Your task to perform on an android device: add a contact Image 0: 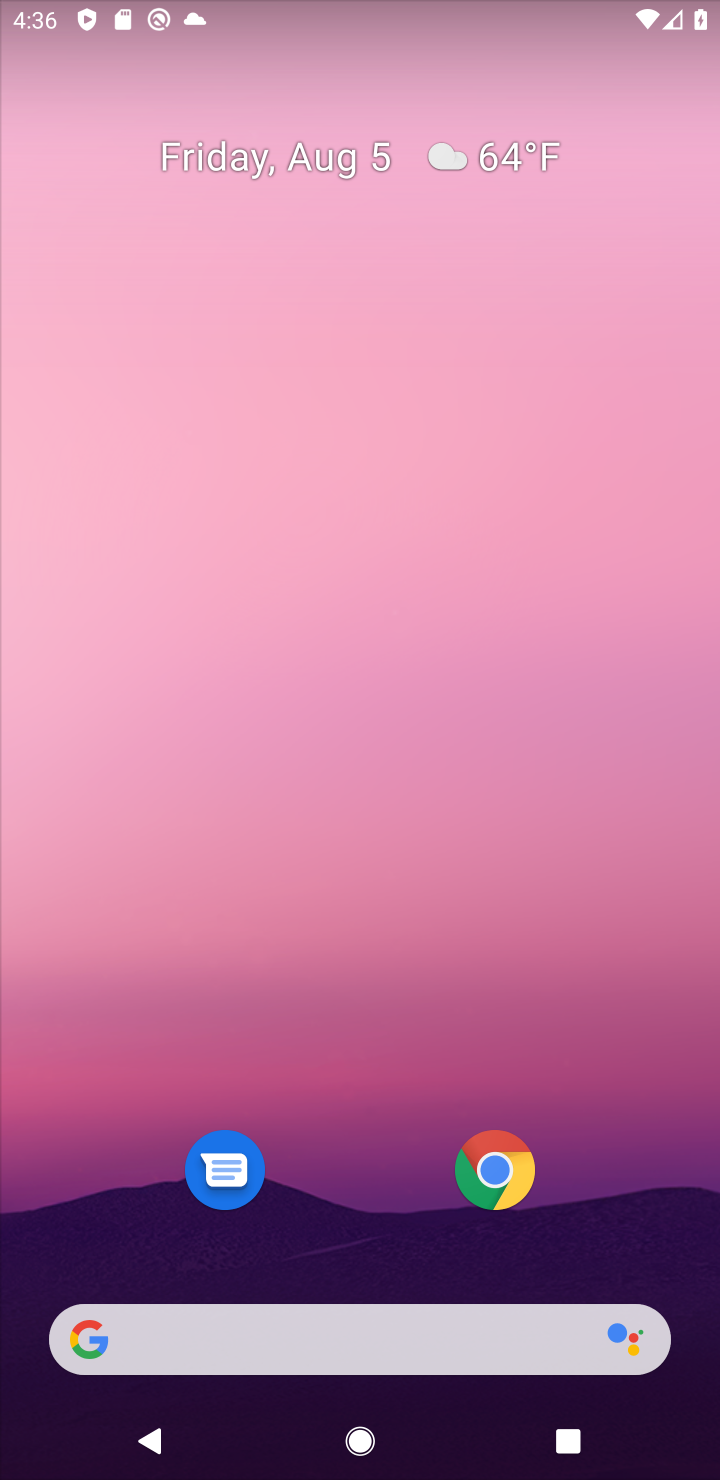
Step 0: drag from (362, 1271) to (425, 46)
Your task to perform on an android device: add a contact Image 1: 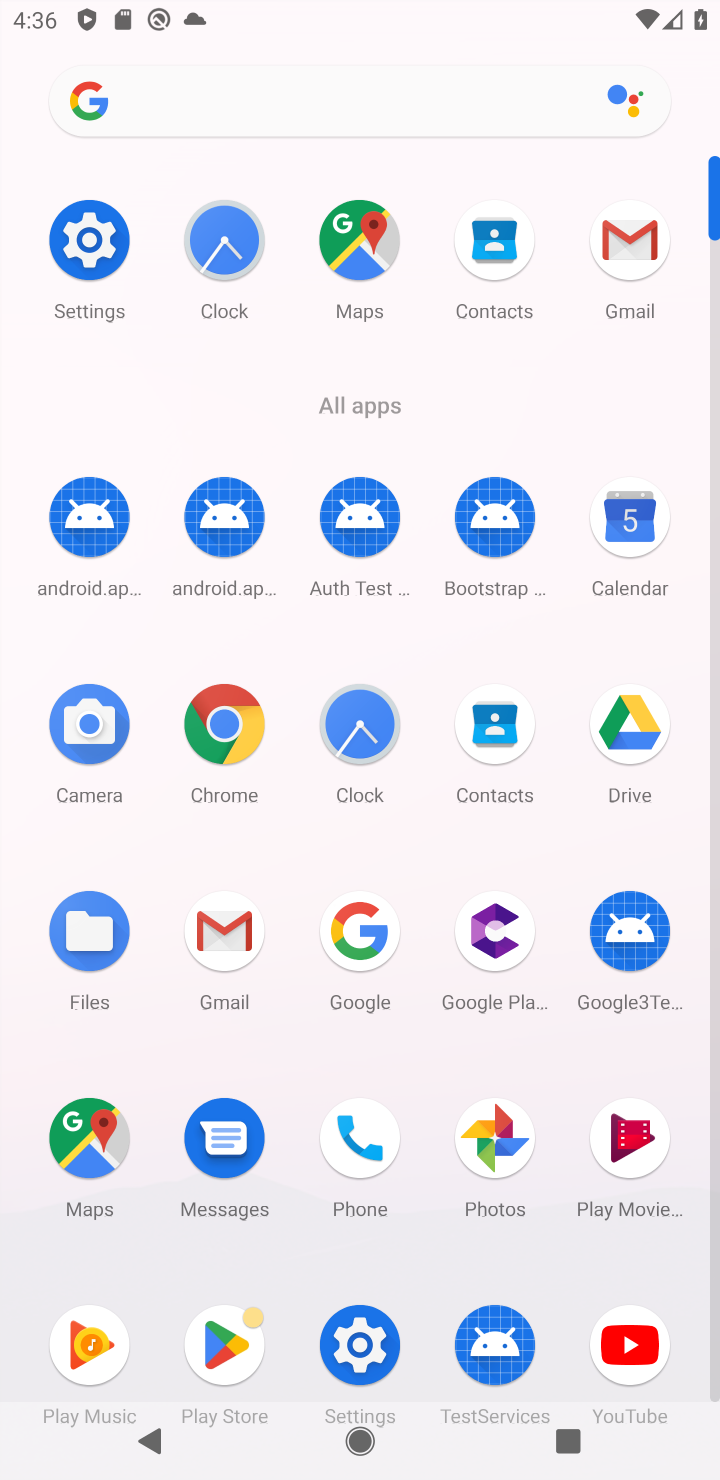
Step 1: click (478, 727)
Your task to perform on an android device: add a contact Image 2: 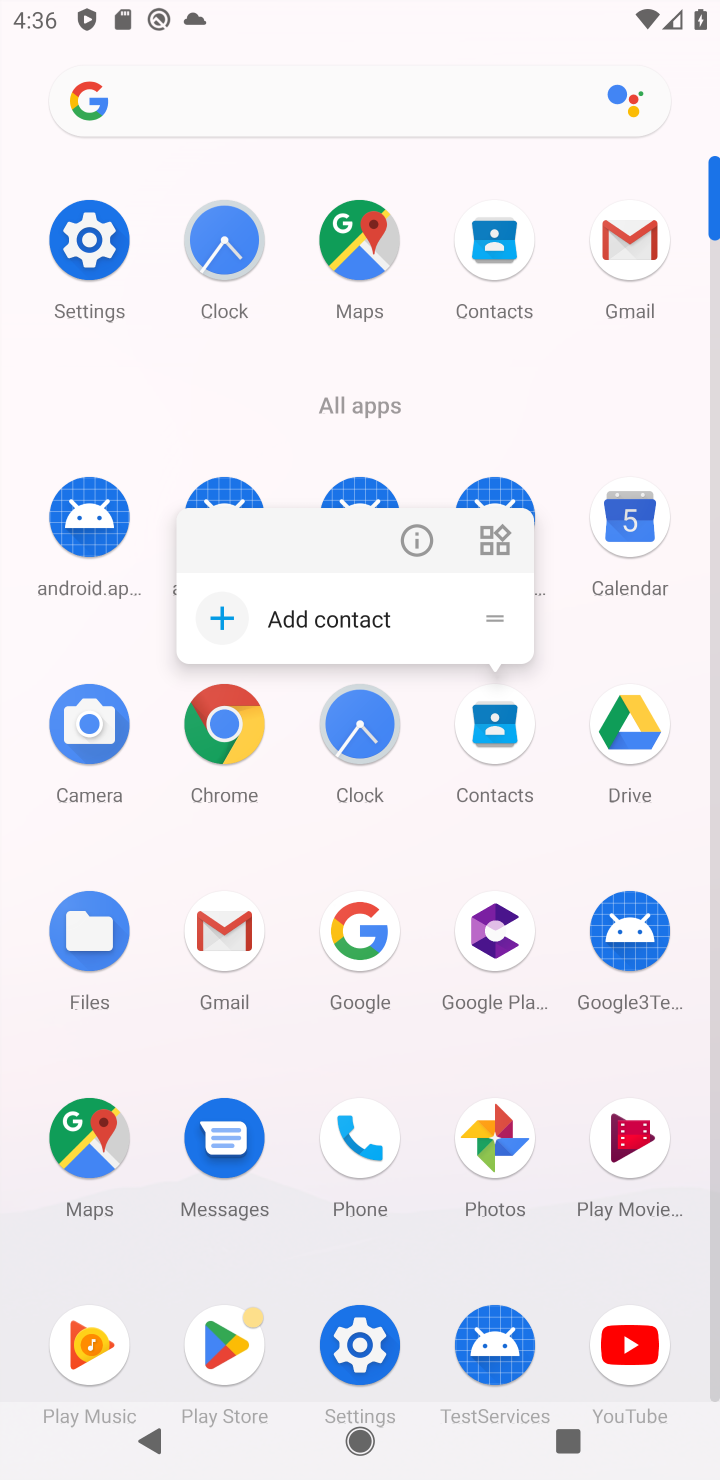
Step 2: click (503, 749)
Your task to perform on an android device: add a contact Image 3: 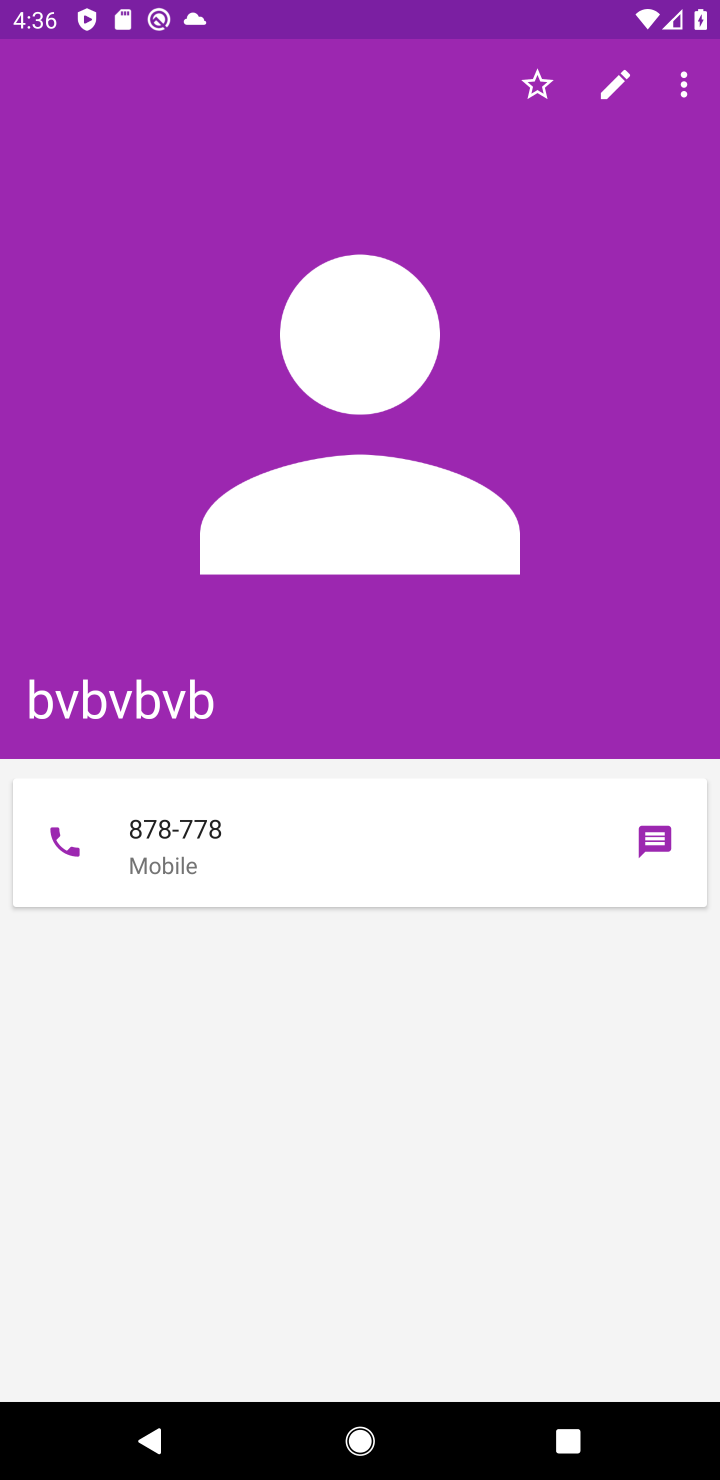
Step 3: press back button
Your task to perform on an android device: add a contact Image 4: 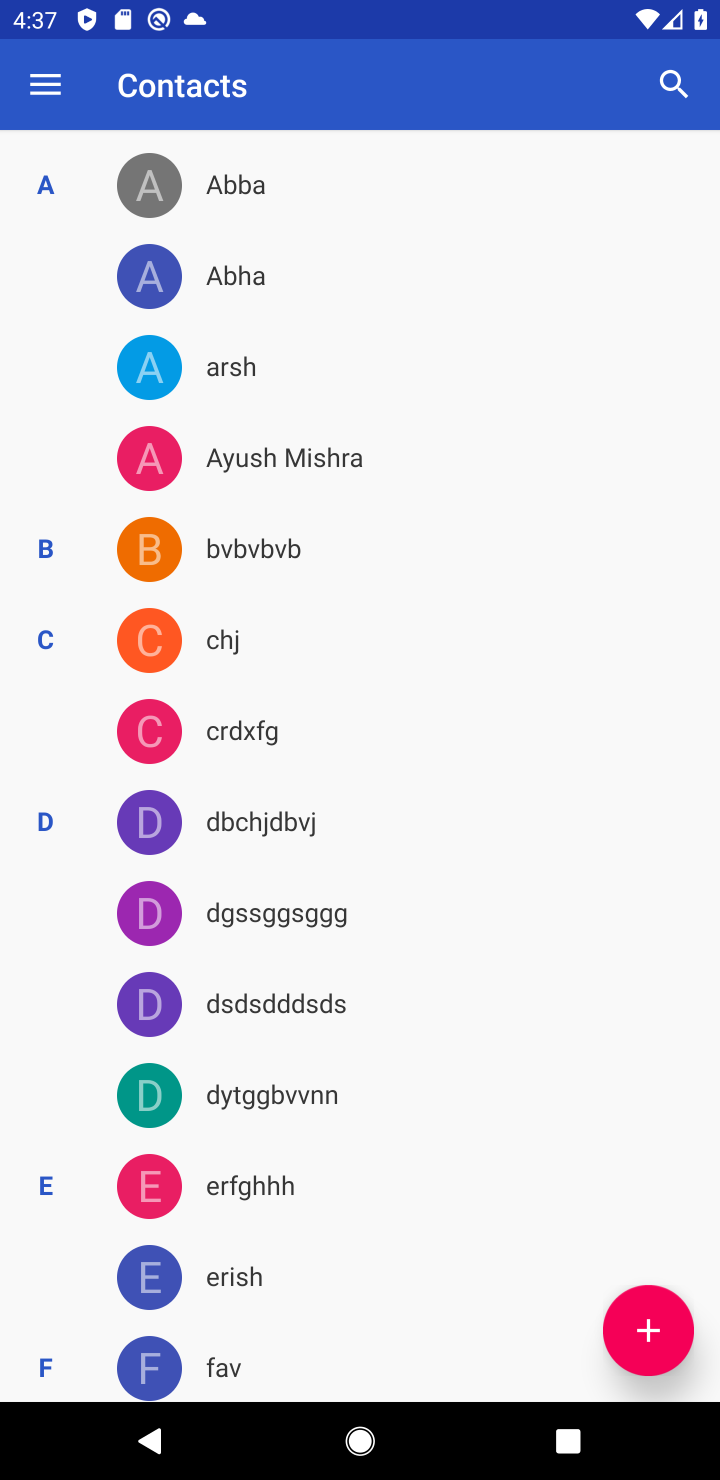
Step 4: click (634, 1317)
Your task to perform on an android device: add a contact Image 5: 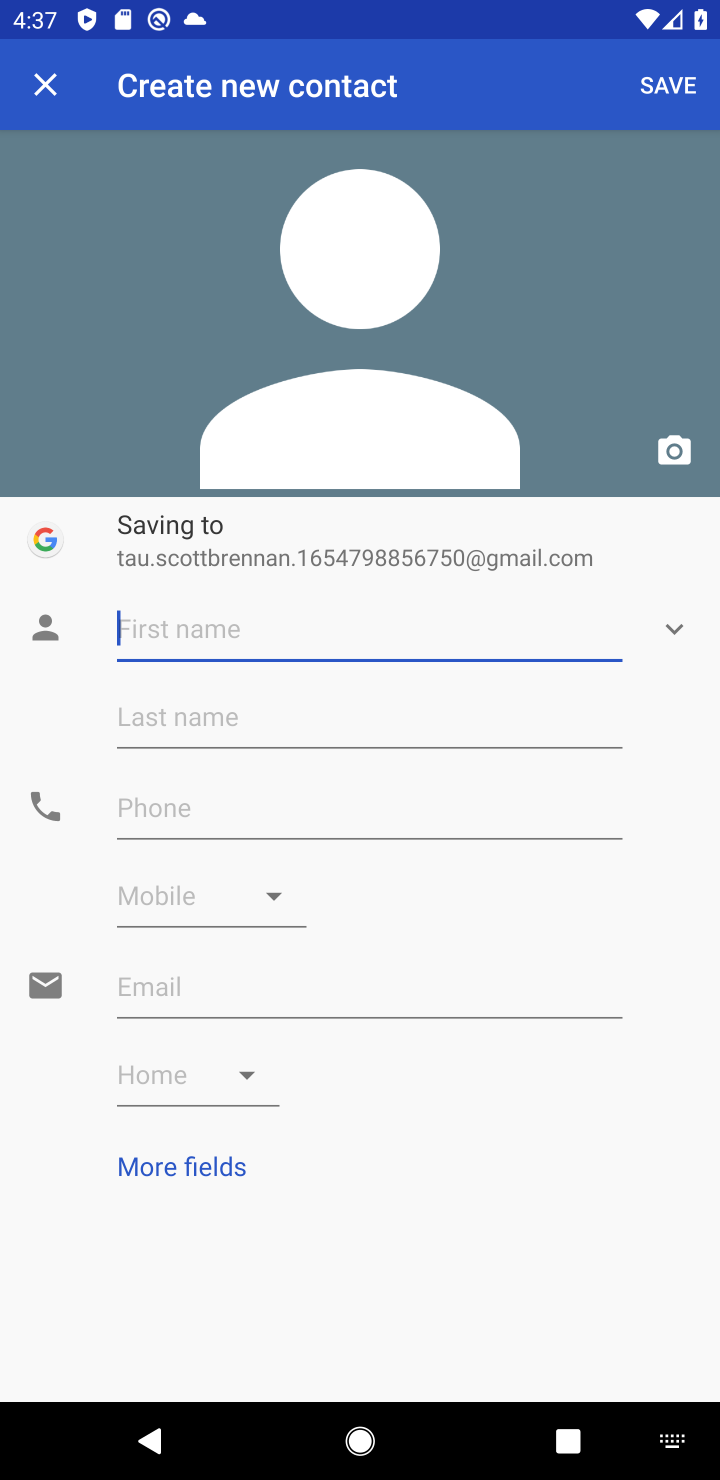
Step 5: type "knknbj"
Your task to perform on an android device: add a contact Image 6: 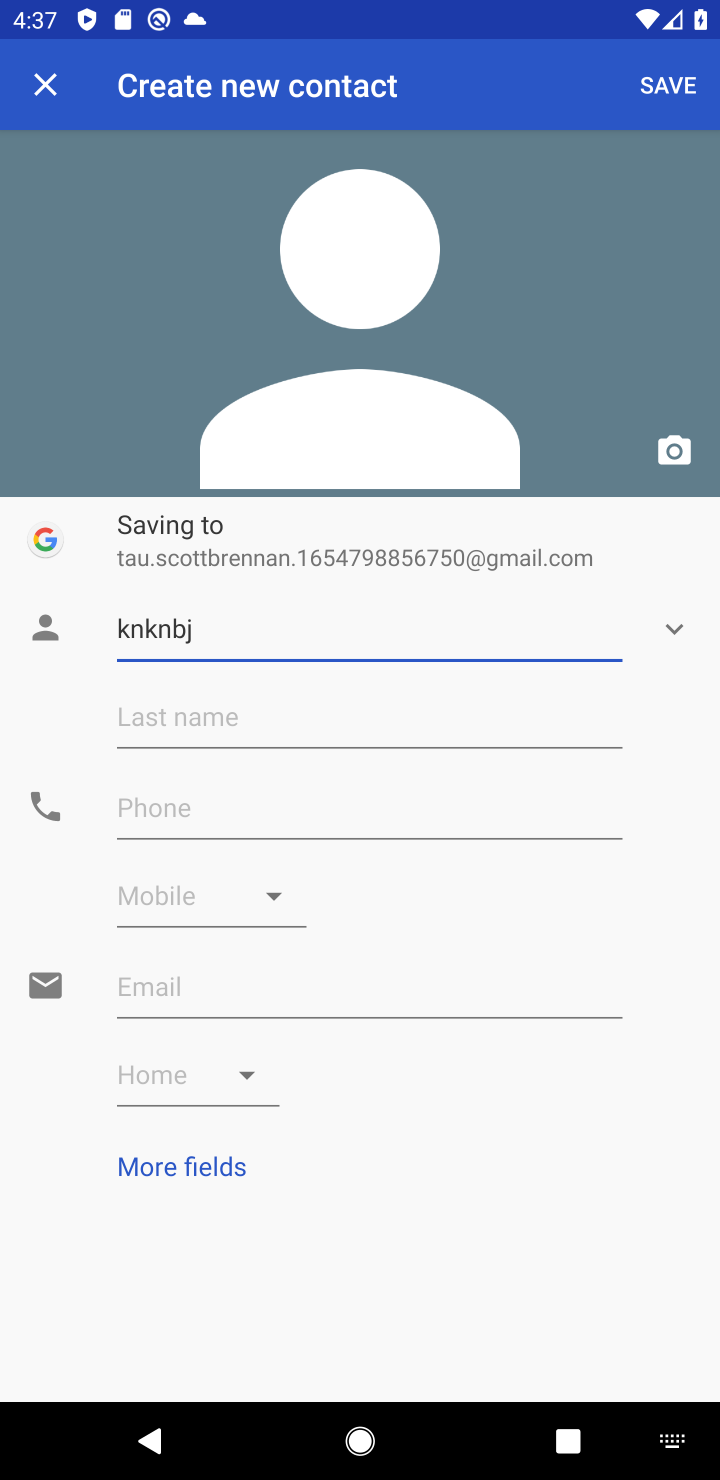
Step 6: click (234, 824)
Your task to perform on an android device: add a contact Image 7: 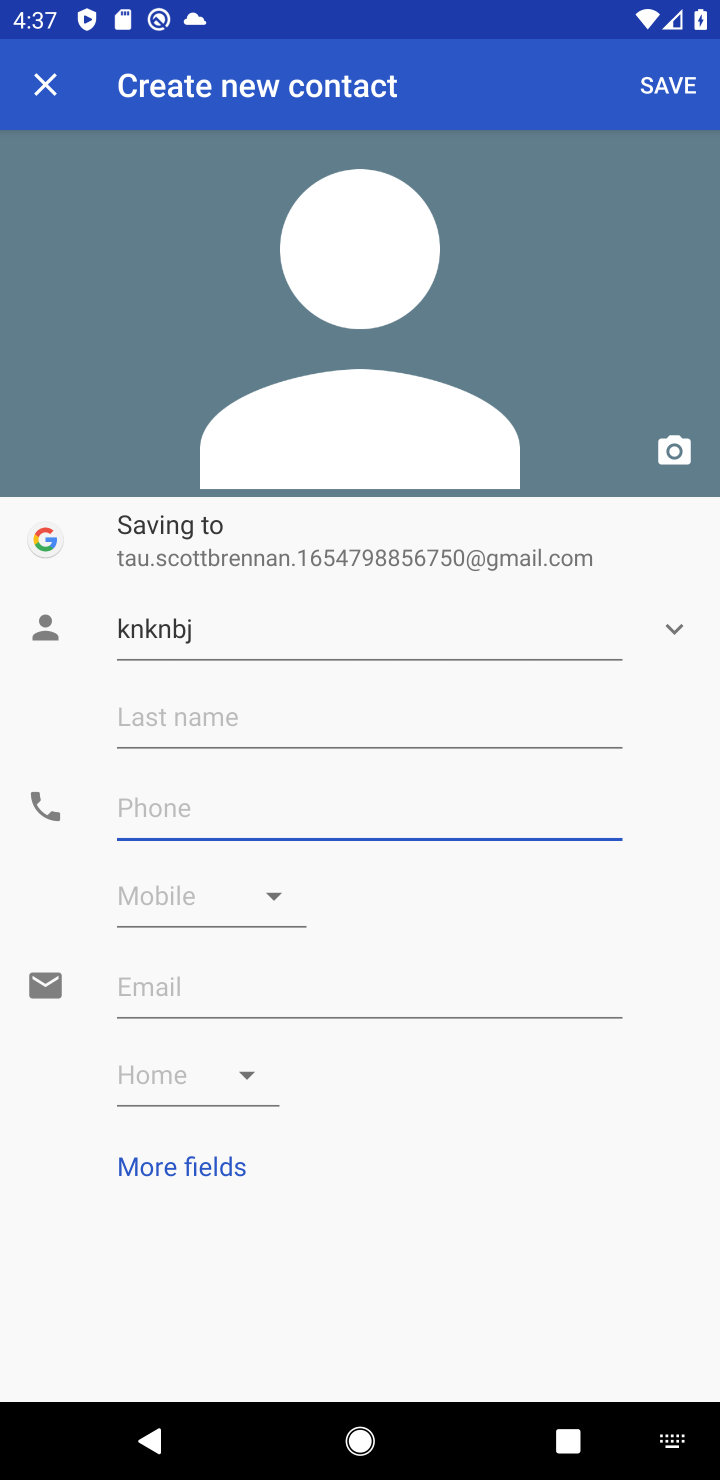
Step 7: type "787878"
Your task to perform on an android device: add a contact Image 8: 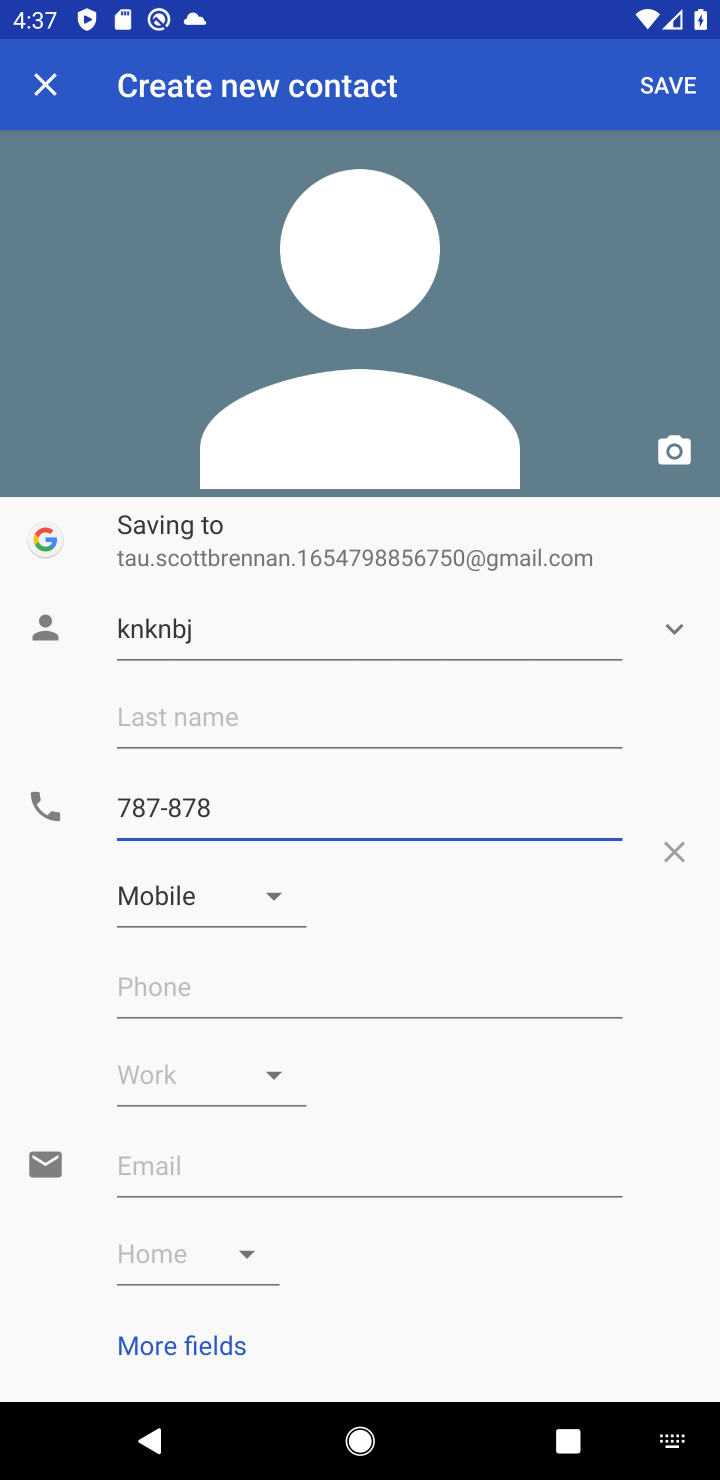
Step 8: click (668, 87)
Your task to perform on an android device: add a contact Image 9: 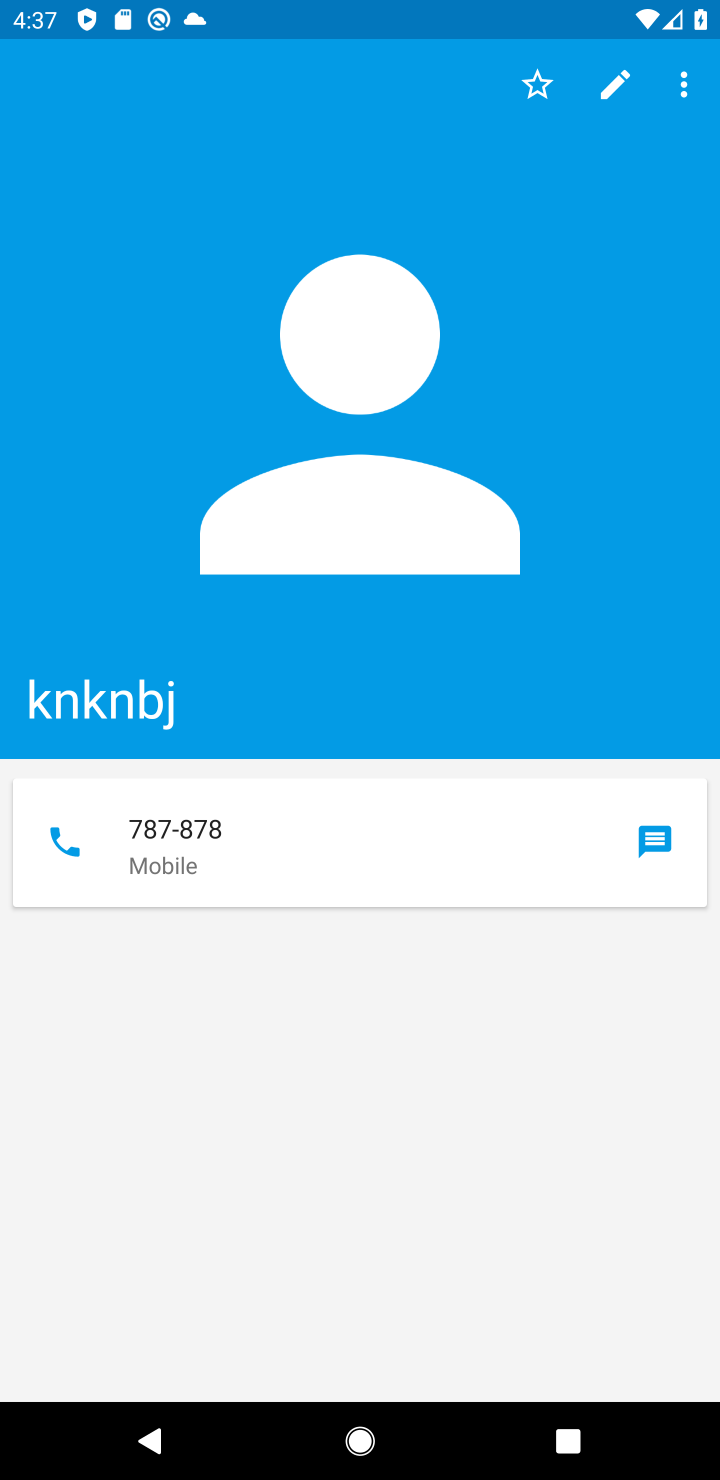
Step 9: task complete